Your task to perform on an android device: What's on my calendar tomorrow? Image 0: 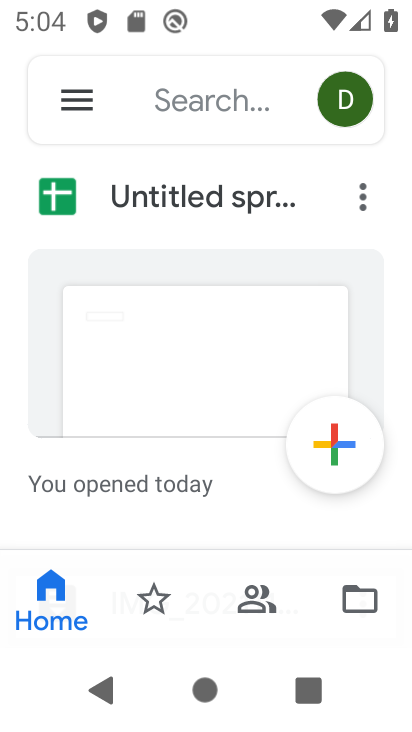
Step 0: press home button
Your task to perform on an android device: What's on my calendar tomorrow? Image 1: 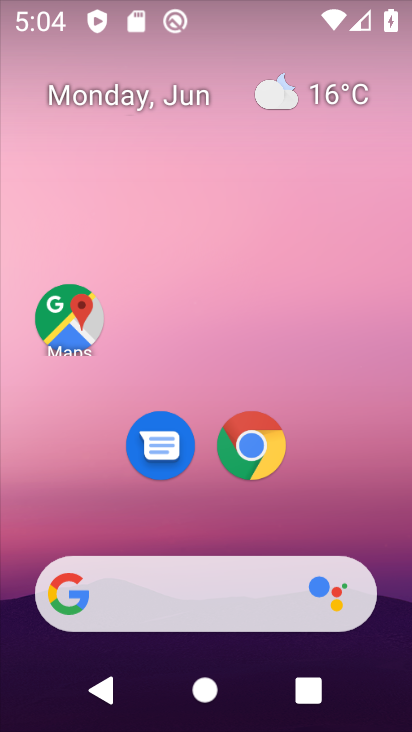
Step 1: drag from (285, 124) to (287, 35)
Your task to perform on an android device: What's on my calendar tomorrow? Image 2: 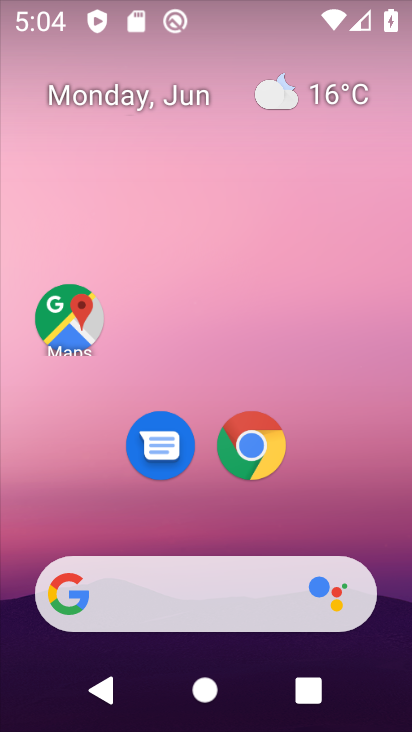
Step 2: drag from (330, 492) to (255, 25)
Your task to perform on an android device: What's on my calendar tomorrow? Image 3: 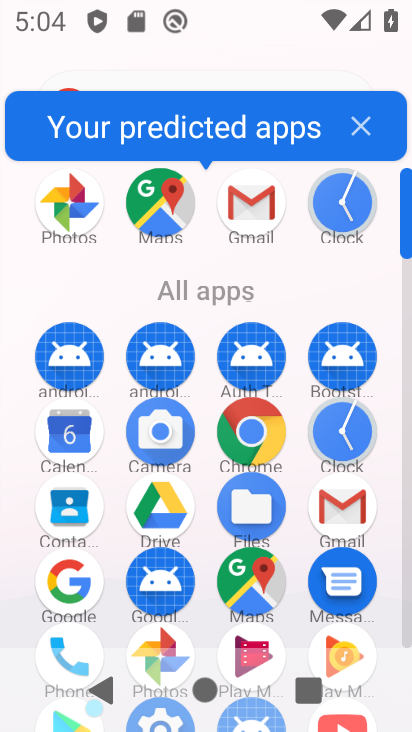
Step 3: click (73, 436)
Your task to perform on an android device: What's on my calendar tomorrow? Image 4: 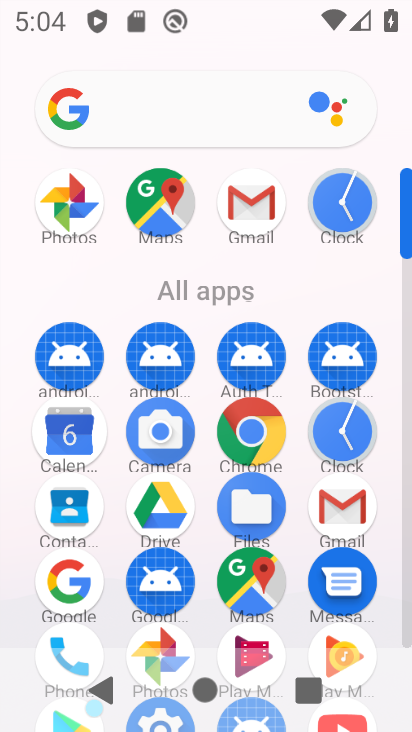
Step 4: click (73, 436)
Your task to perform on an android device: What's on my calendar tomorrow? Image 5: 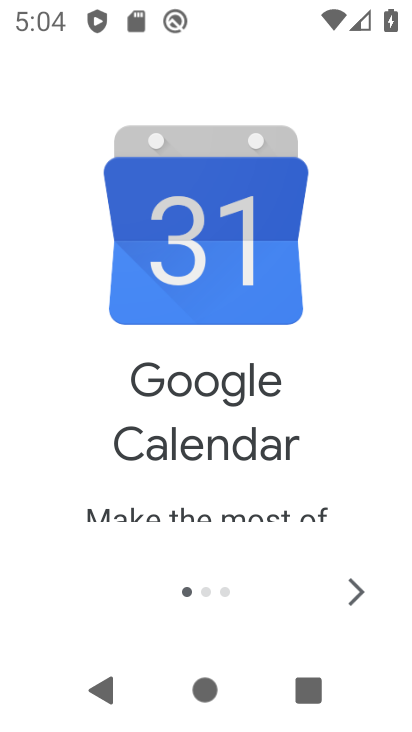
Step 5: click (354, 587)
Your task to perform on an android device: What's on my calendar tomorrow? Image 6: 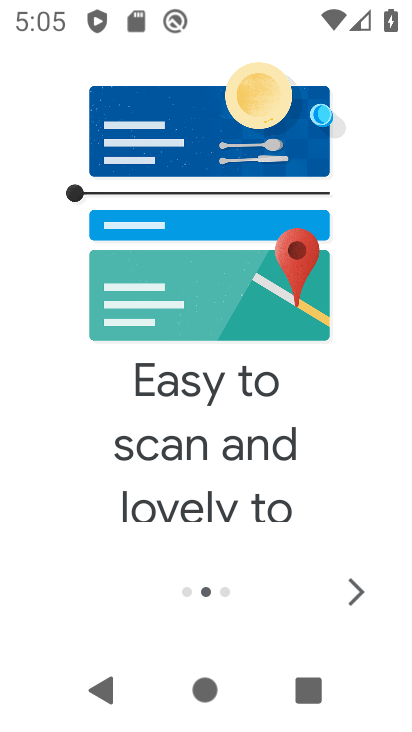
Step 6: click (354, 587)
Your task to perform on an android device: What's on my calendar tomorrow? Image 7: 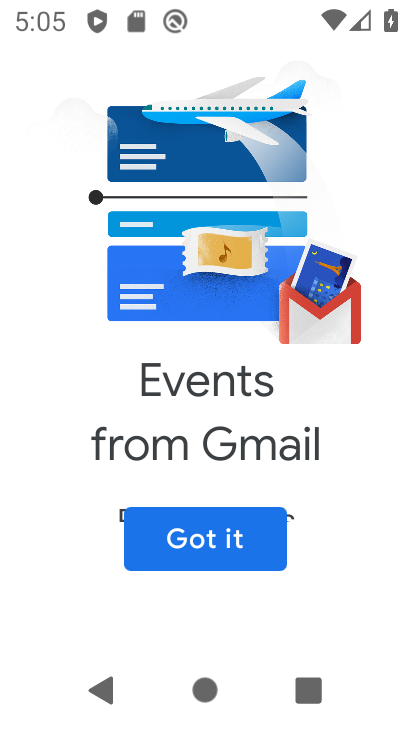
Step 7: click (213, 542)
Your task to perform on an android device: What's on my calendar tomorrow? Image 8: 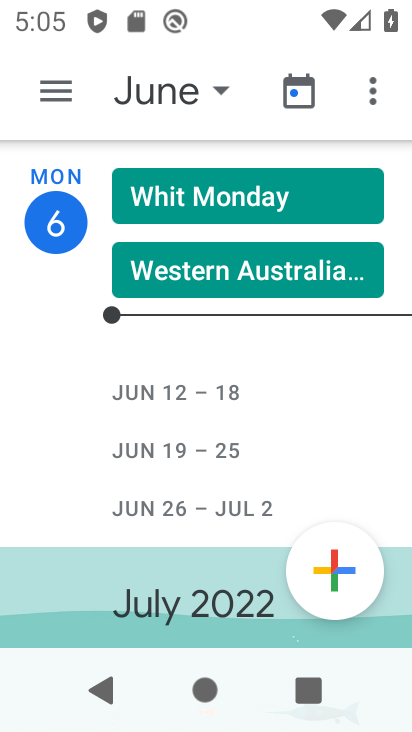
Step 8: click (228, 92)
Your task to perform on an android device: What's on my calendar tomorrow? Image 9: 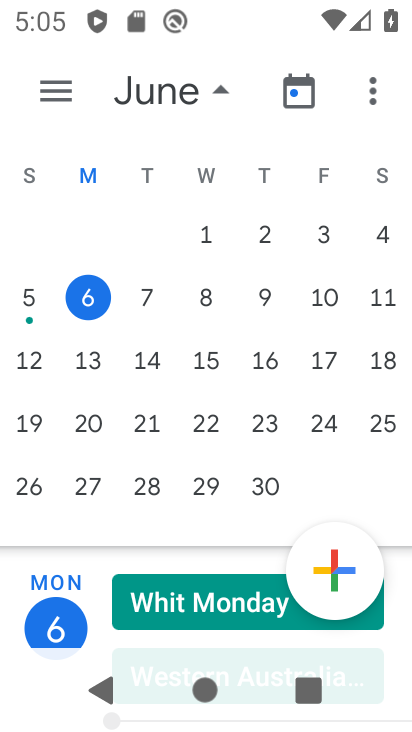
Step 9: click (147, 300)
Your task to perform on an android device: What's on my calendar tomorrow? Image 10: 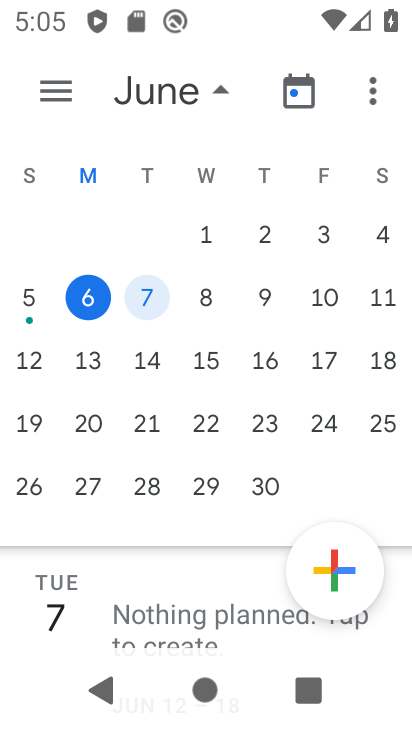
Step 10: click (70, 102)
Your task to perform on an android device: What's on my calendar tomorrow? Image 11: 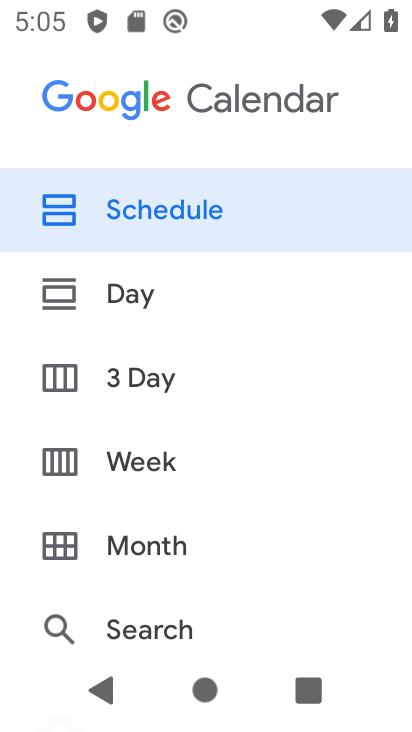
Step 11: click (142, 220)
Your task to perform on an android device: What's on my calendar tomorrow? Image 12: 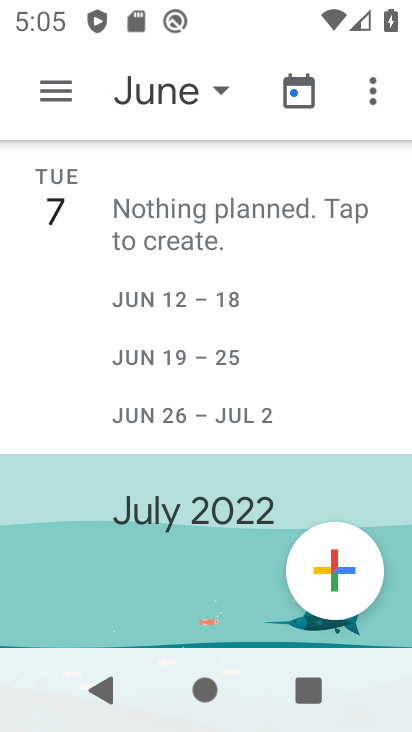
Step 12: task complete